Your task to perform on an android device: When is my next meeting? Image 0: 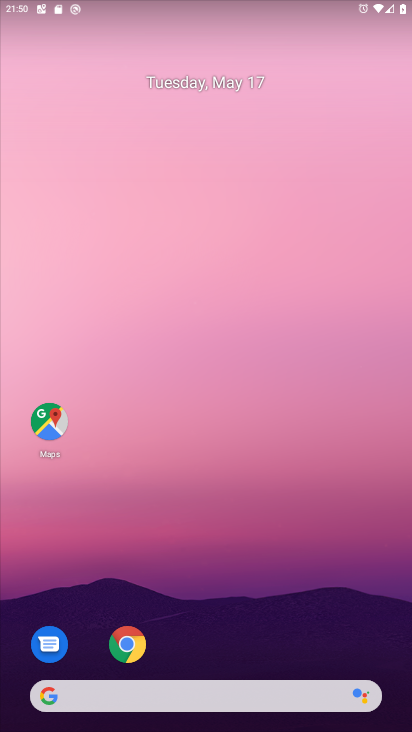
Step 0: drag from (210, 654) to (229, 155)
Your task to perform on an android device: When is my next meeting? Image 1: 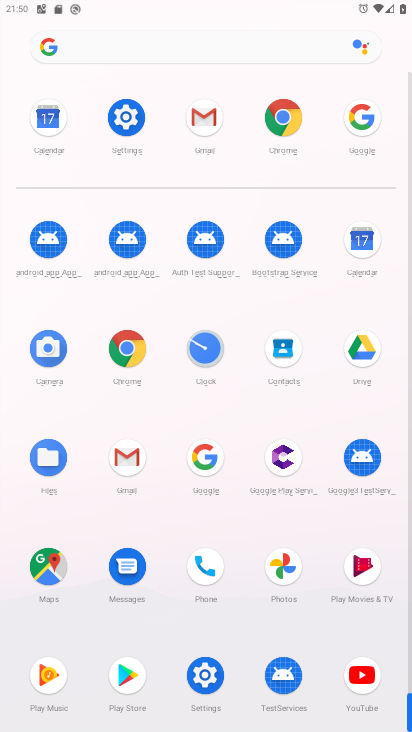
Step 1: click (359, 231)
Your task to perform on an android device: When is my next meeting? Image 2: 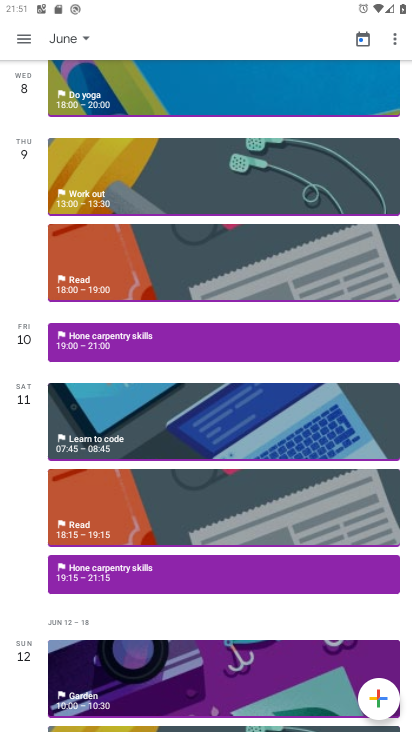
Step 2: click (82, 40)
Your task to perform on an android device: When is my next meeting? Image 3: 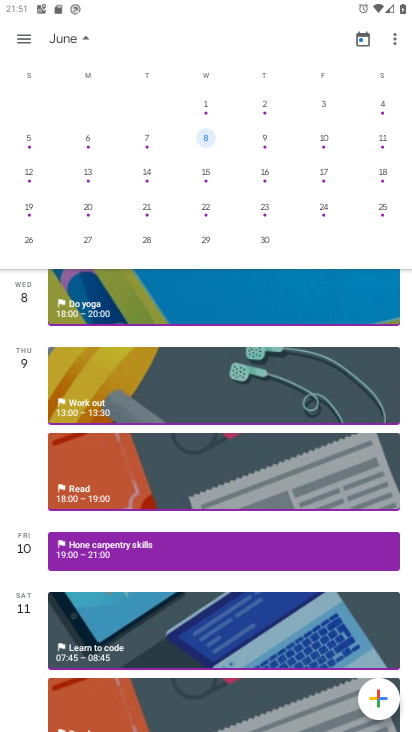
Step 3: drag from (41, 187) to (397, 180)
Your task to perform on an android device: When is my next meeting? Image 4: 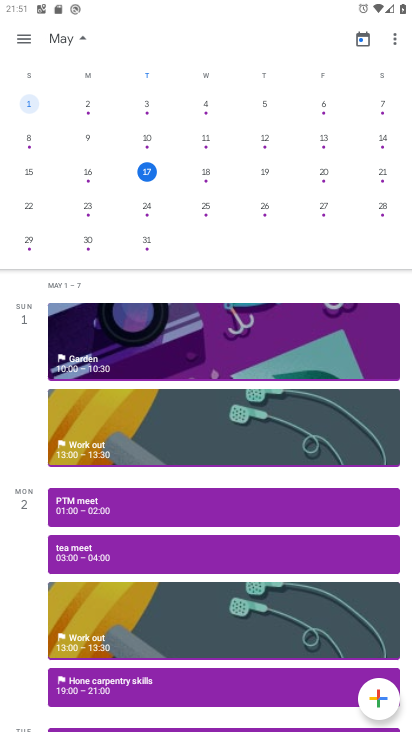
Step 4: click (152, 170)
Your task to perform on an android device: When is my next meeting? Image 5: 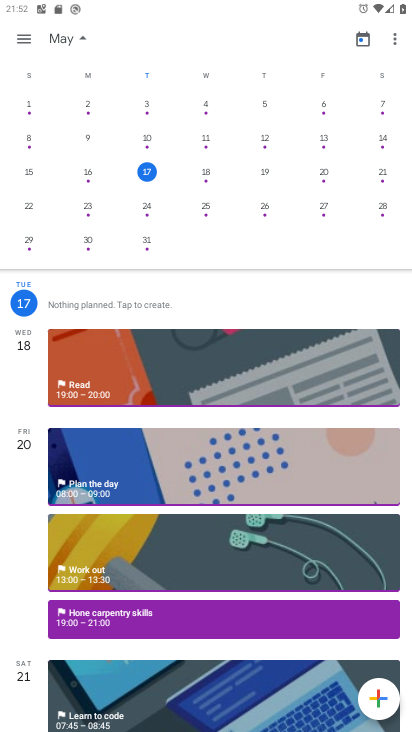
Step 5: drag from (11, 466) to (46, 231)
Your task to perform on an android device: When is my next meeting? Image 6: 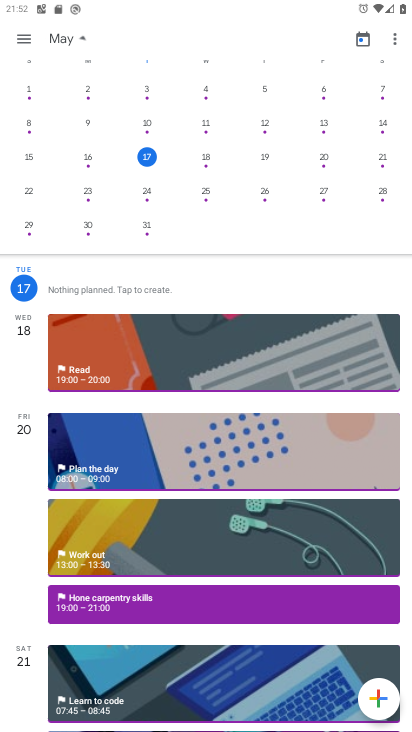
Step 6: click (80, 38)
Your task to perform on an android device: When is my next meeting? Image 7: 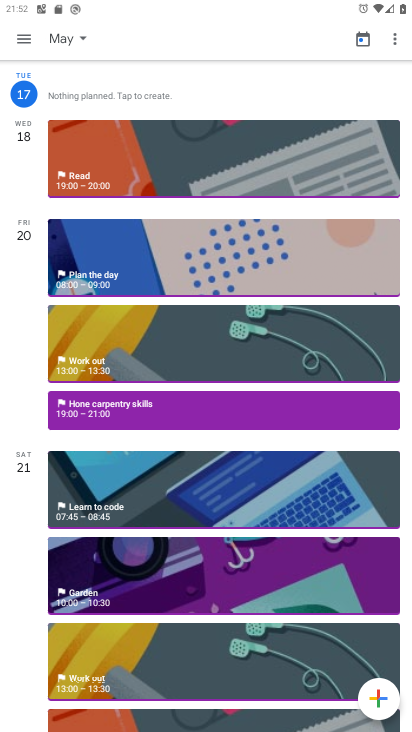
Step 7: drag from (24, 403) to (67, 153)
Your task to perform on an android device: When is my next meeting? Image 8: 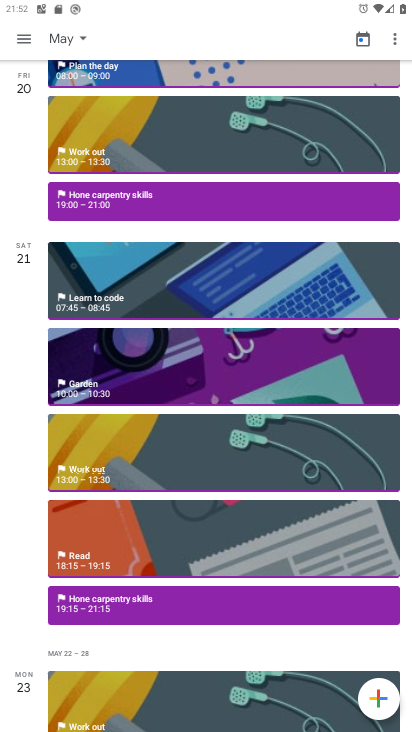
Step 8: click (67, 133)
Your task to perform on an android device: When is my next meeting? Image 9: 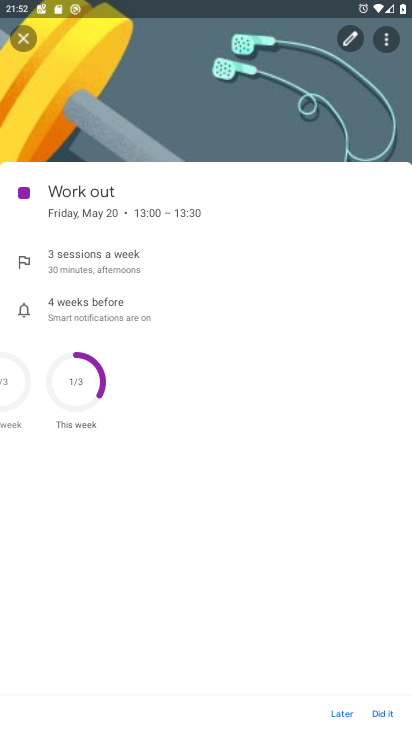
Step 9: task complete